Your task to perform on an android device: move an email to a new category in the gmail app Image 0: 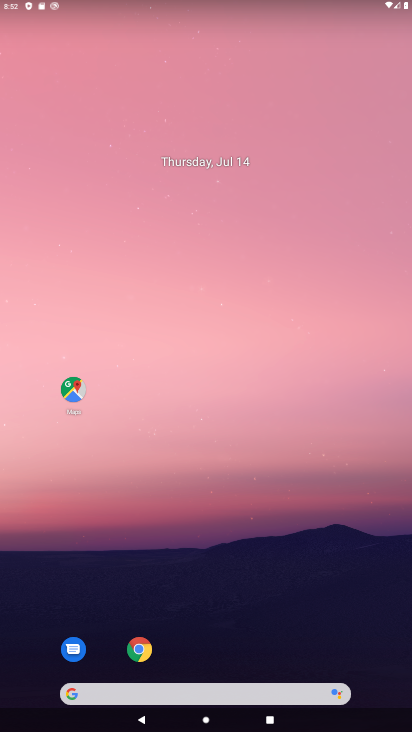
Step 0: drag from (236, 599) to (212, 79)
Your task to perform on an android device: move an email to a new category in the gmail app Image 1: 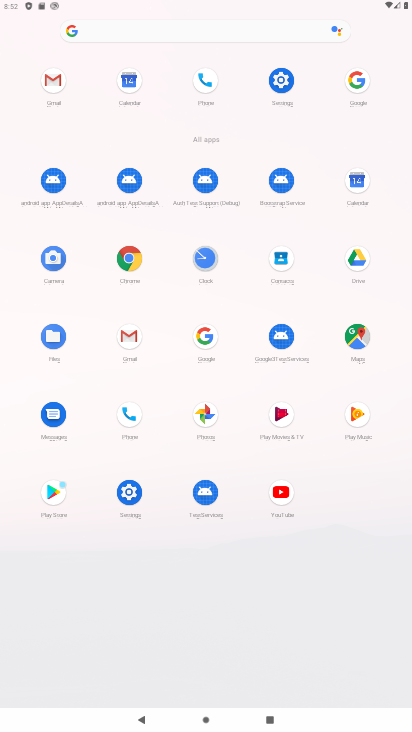
Step 1: click (70, 99)
Your task to perform on an android device: move an email to a new category in the gmail app Image 2: 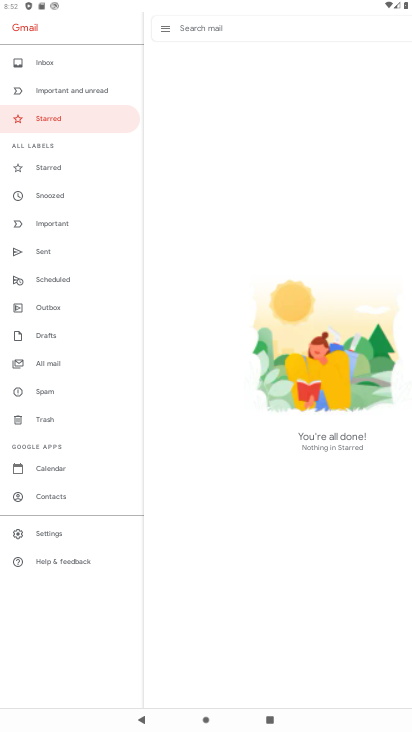
Step 2: click (58, 363)
Your task to perform on an android device: move an email to a new category in the gmail app Image 3: 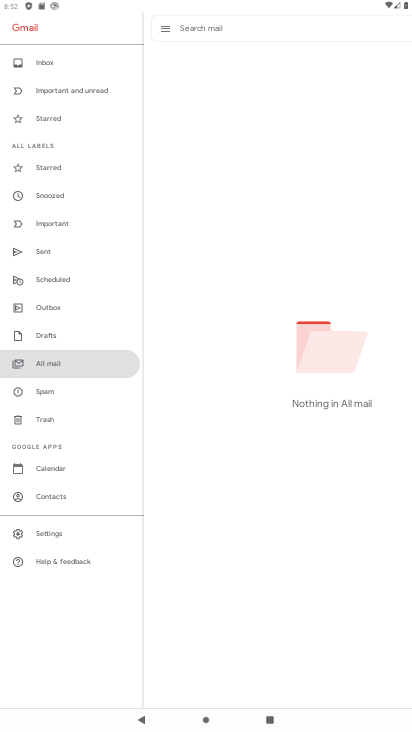
Step 3: task complete